Your task to perform on an android device: open app "ZOOM Cloud Meetings" (install if not already installed) Image 0: 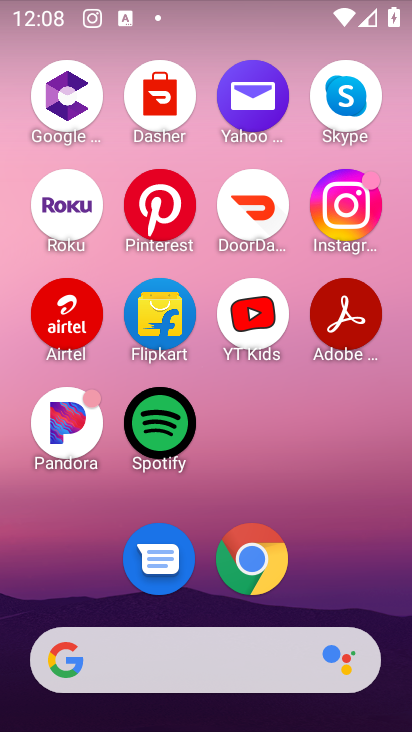
Step 0: drag from (63, 433) to (161, 7)
Your task to perform on an android device: open app "ZOOM Cloud Meetings" (install if not already installed) Image 1: 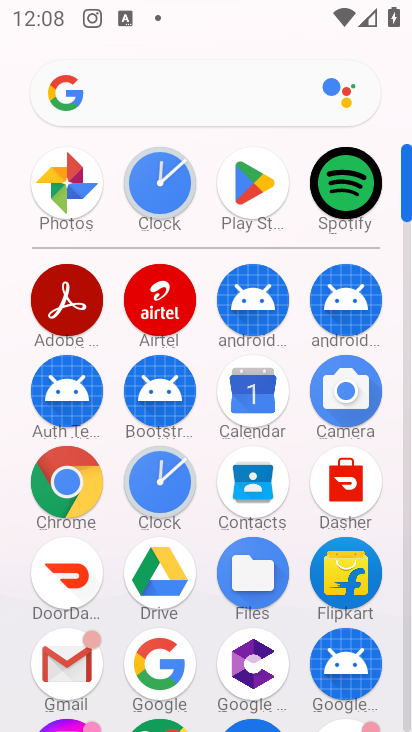
Step 1: click (257, 175)
Your task to perform on an android device: open app "ZOOM Cloud Meetings" (install if not already installed) Image 2: 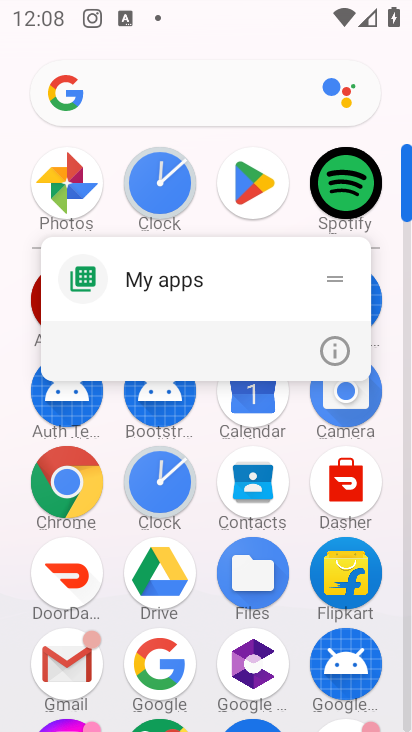
Step 2: click (259, 171)
Your task to perform on an android device: open app "ZOOM Cloud Meetings" (install if not already installed) Image 3: 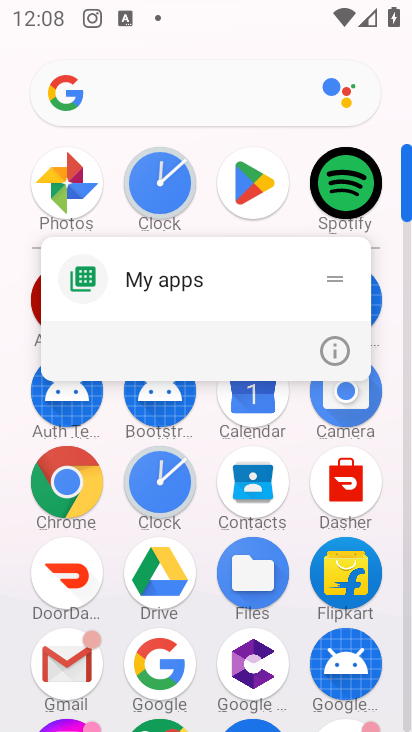
Step 3: click (249, 191)
Your task to perform on an android device: open app "ZOOM Cloud Meetings" (install if not already installed) Image 4: 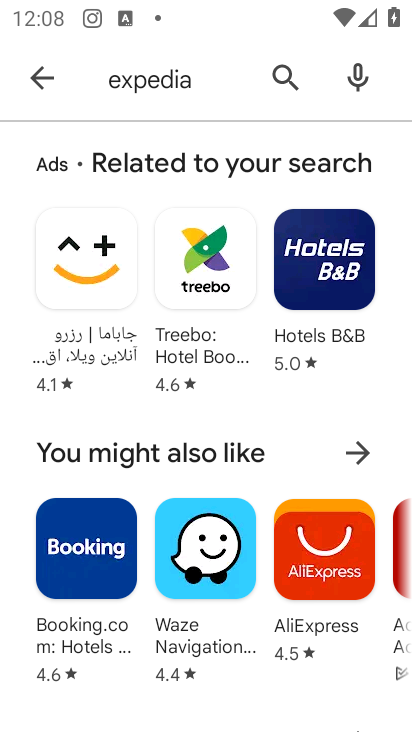
Step 4: click (269, 70)
Your task to perform on an android device: open app "ZOOM Cloud Meetings" (install if not already installed) Image 5: 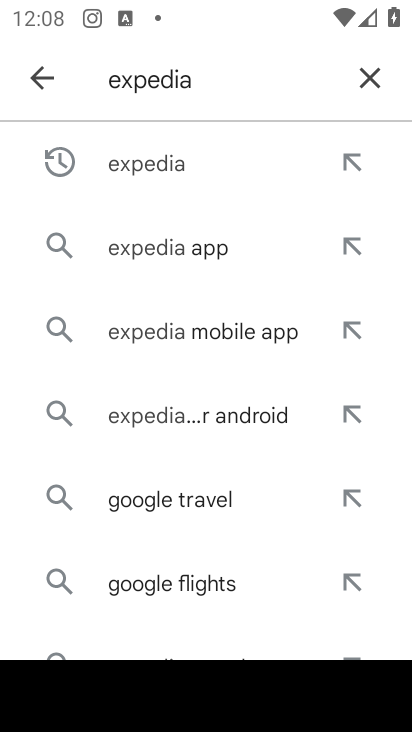
Step 5: click (376, 83)
Your task to perform on an android device: open app "ZOOM Cloud Meetings" (install if not already installed) Image 6: 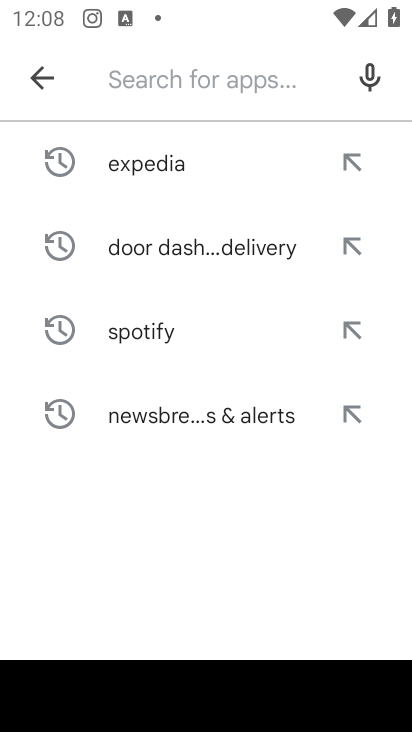
Step 6: click (180, 79)
Your task to perform on an android device: open app "ZOOM Cloud Meetings" (install if not already installed) Image 7: 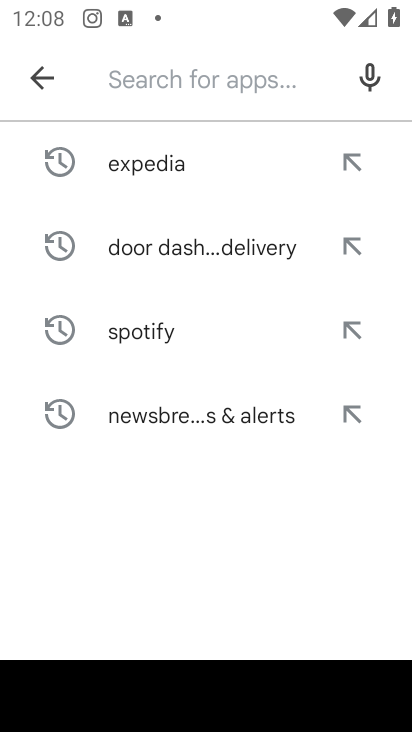
Step 7: click (162, 95)
Your task to perform on an android device: open app "ZOOM Cloud Meetings" (install if not already installed) Image 8: 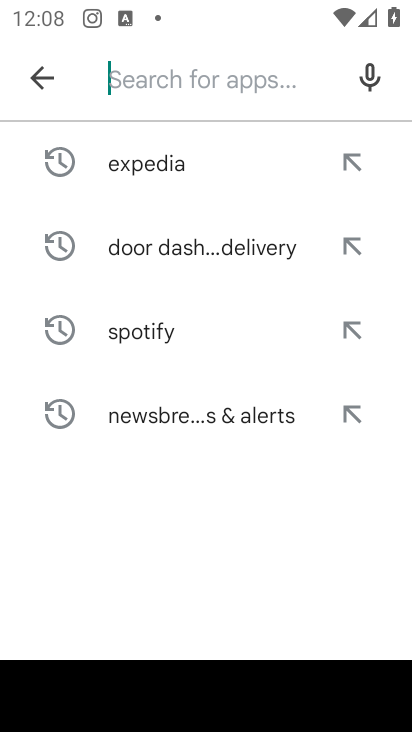
Step 8: type "zoom cloud meetings"
Your task to perform on an android device: open app "ZOOM Cloud Meetings" (install if not already installed) Image 9: 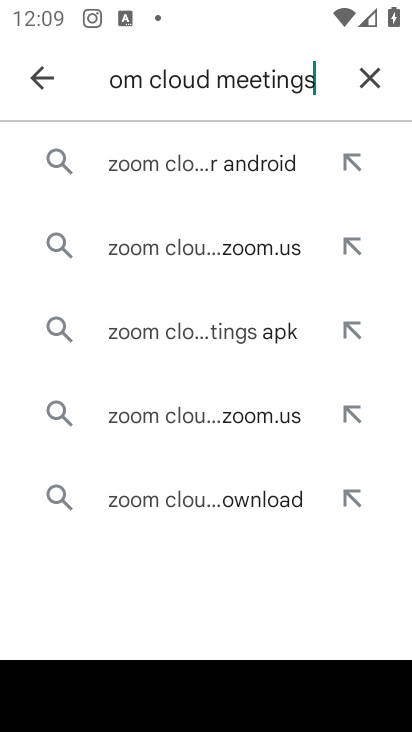
Step 9: click (189, 157)
Your task to perform on an android device: open app "ZOOM Cloud Meetings" (install if not already installed) Image 10: 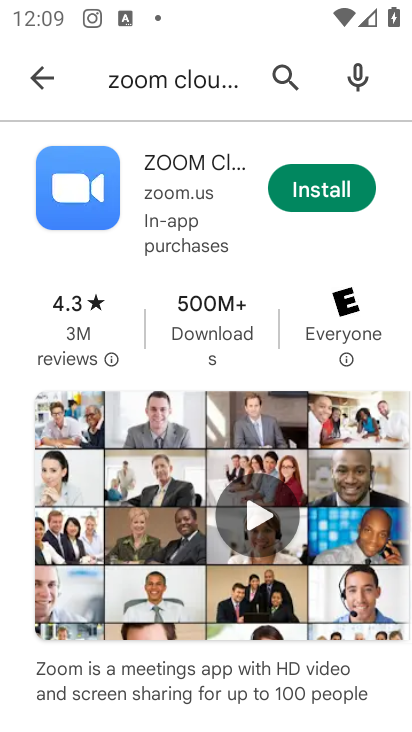
Step 10: click (314, 189)
Your task to perform on an android device: open app "ZOOM Cloud Meetings" (install if not already installed) Image 11: 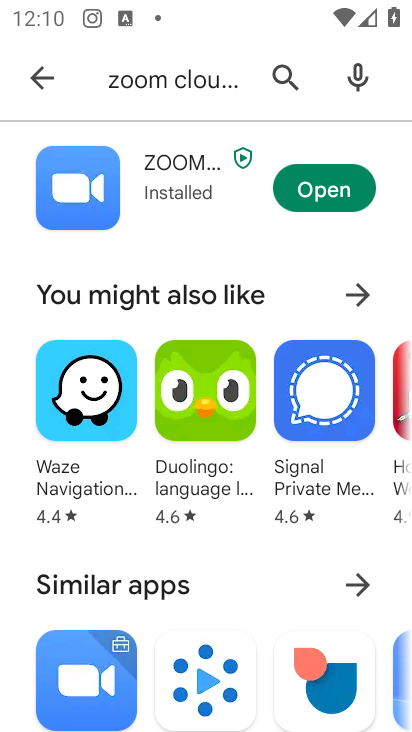
Step 11: click (322, 181)
Your task to perform on an android device: open app "ZOOM Cloud Meetings" (install if not already installed) Image 12: 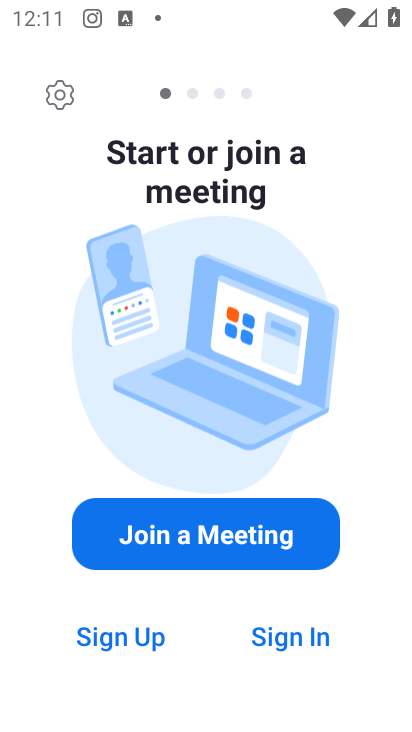
Step 12: task complete